Your task to perform on an android device: Do I have any events today? Image 0: 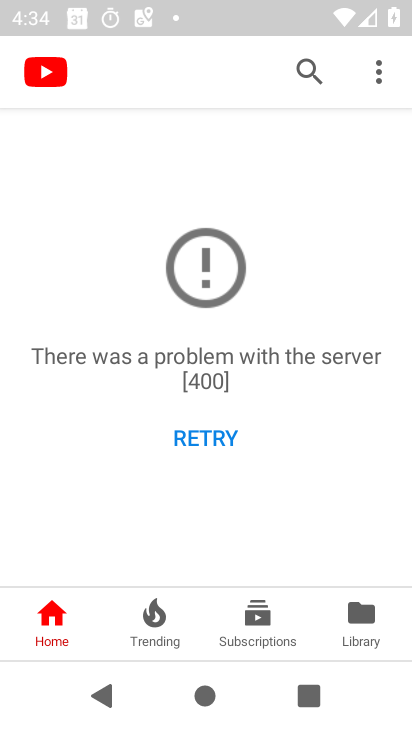
Step 0: press back button
Your task to perform on an android device: Do I have any events today? Image 1: 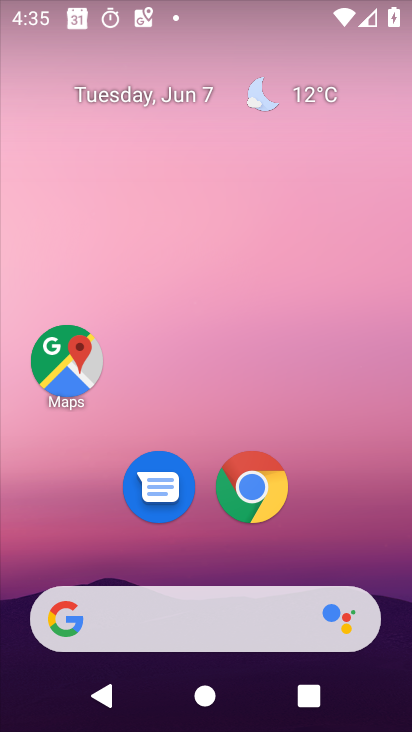
Step 1: drag from (198, 520) to (245, 144)
Your task to perform on an android device: Do I have any events today? Image 2: 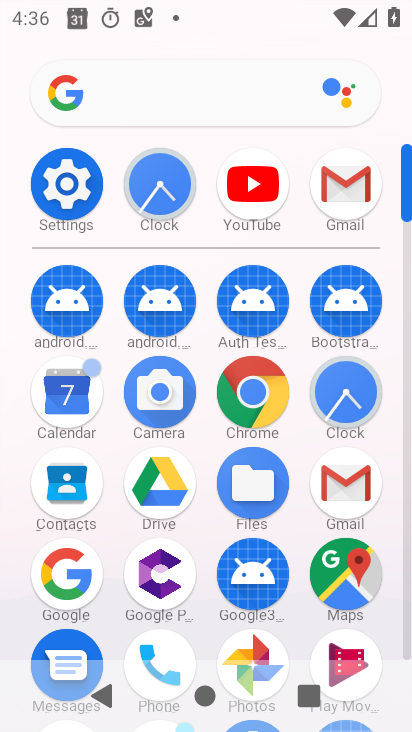
Step 2: click (53, 400)
Your task to perform on an android device: Do I have any events today? Image 3: 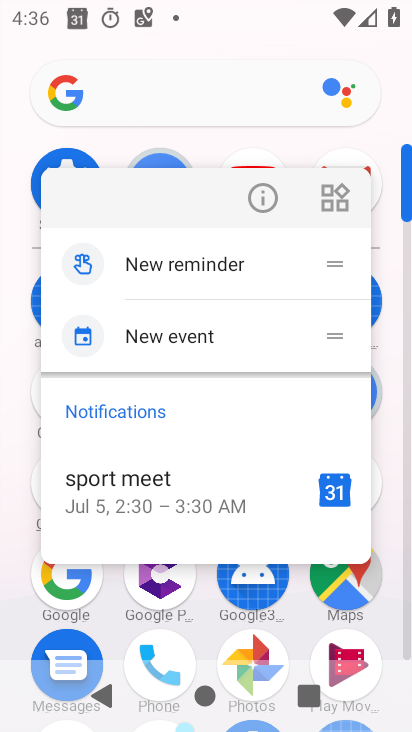
Step 3: click (17, 320)
Your task to perform on an android device: Do I have any events today? Image 4: 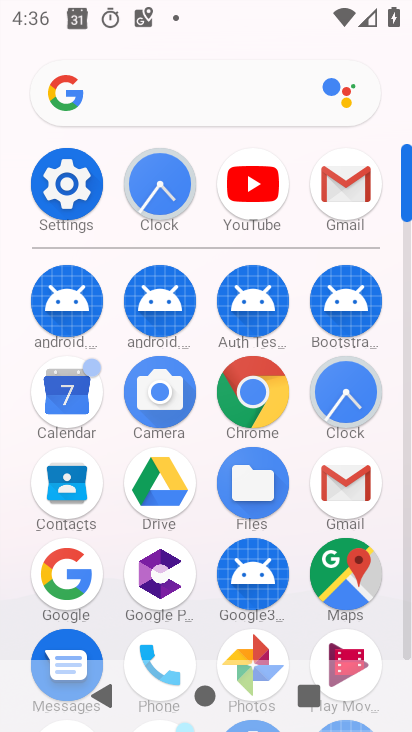
Step 4: click (73, 405)
Your task to perform on an android device: Do I have any events today? Image 5: 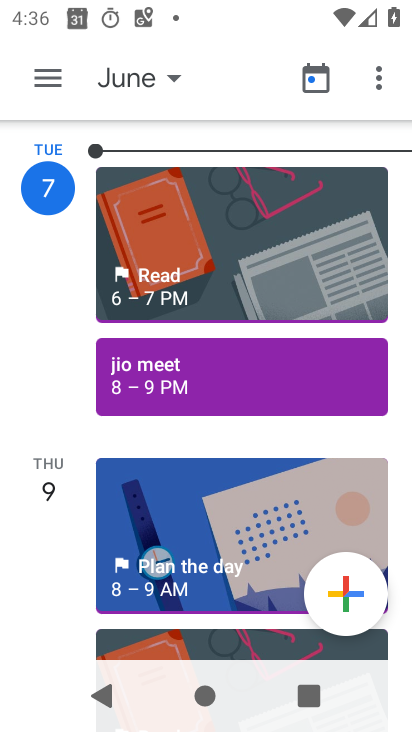
Step 5: click (169, 368)
Your task to perform on an android device: Do I have any events today? Image 6: 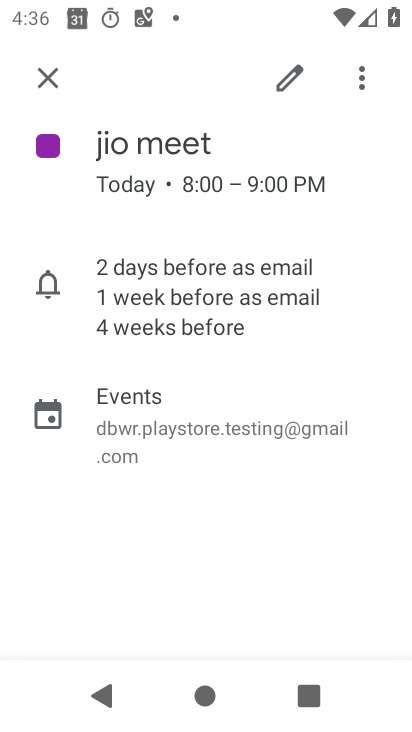
Step 6: task complete